Your task to perform on an android device: Open the stopwatch Image 0: 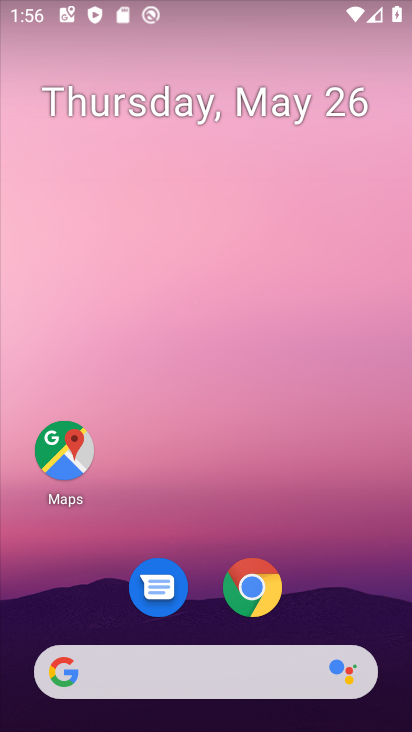
Step 0: drag from (292, 567) to (306, 98)
Your task to perform on an android device: Open the stopwatch Image 1: 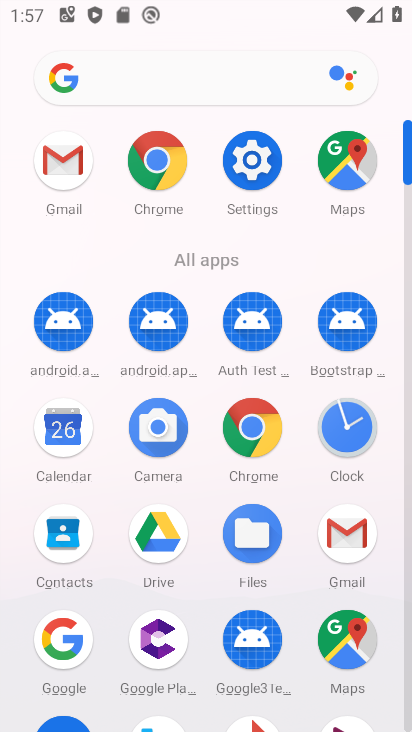
Step 1: click (339, 439)
Your task to perform on an android device: Open the stopwatch Image 2: 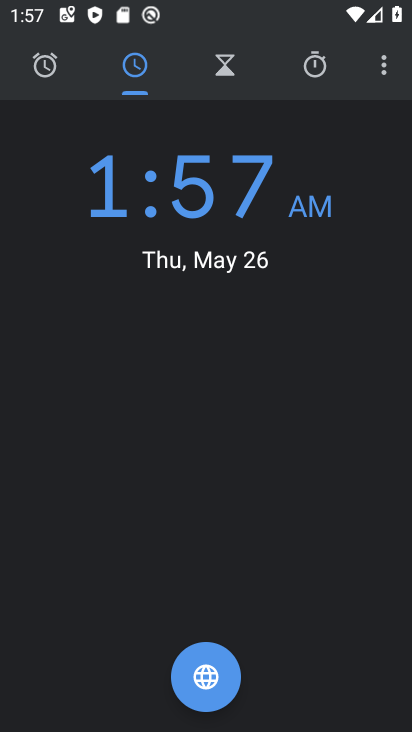
Step 2: click (307, 68)
Your task to perform on an android device: Open the stopwatch Image 3: 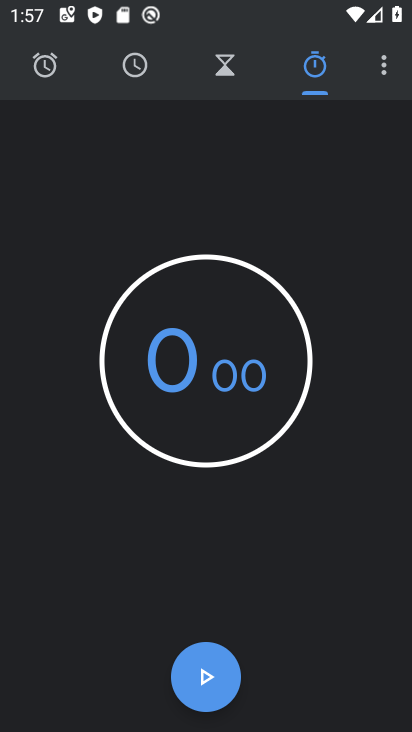
Step 3: task complete